Your task to perform on an android device: turn pop-ups off in chrome Image 0: 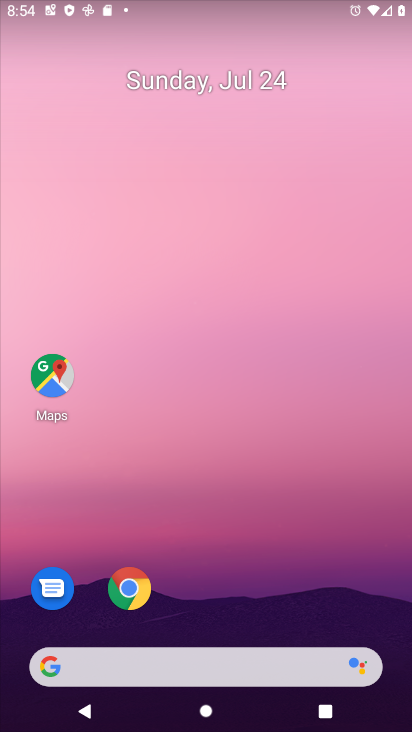
Step 0: drag from (408, 571) to (381, 504)
Your task to perform on an android device: turn pop-ups off in chrome Image 1: 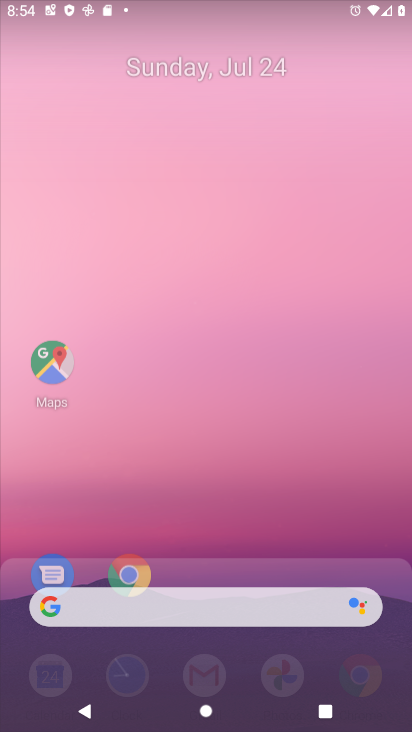
Step 1: drag from (265, 571) to (384, 1)
Your task to perform on an android device: turn pop-ups off in chrome Image 2: 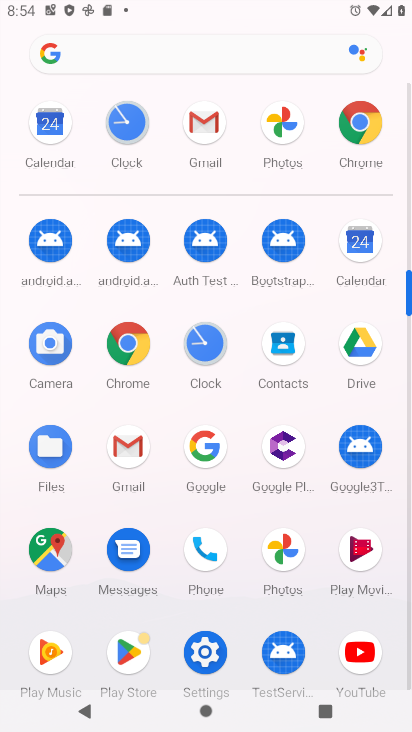
Step 2: click (373, 140)
Your task to perform on an android device: turn pop-ups off in chrome Image 3: 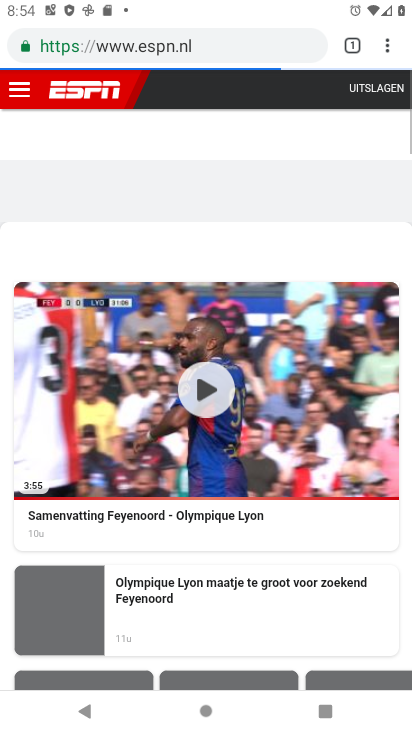
Step 3: drag from (380, 55) to (238, 508)
Your task to perform on an android device: turn pop-ups off in chrome Image 4: 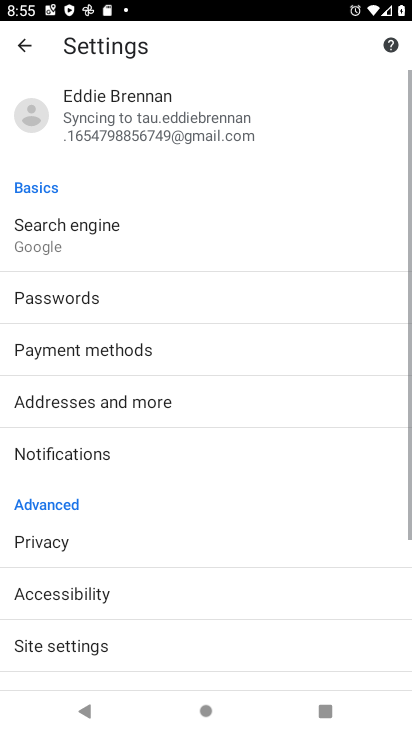
Step 4: drag from (128, 619) to (270, 204)
Your task to perform on an android device: turn pop-ups off in chrome Image 5: 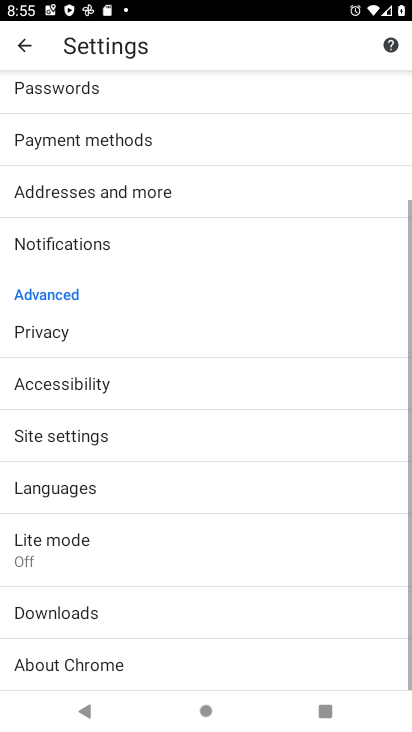
Step 5: click (82, 437)
Your task to perform on an android device: turn pop-ups off in chrome Image 6: 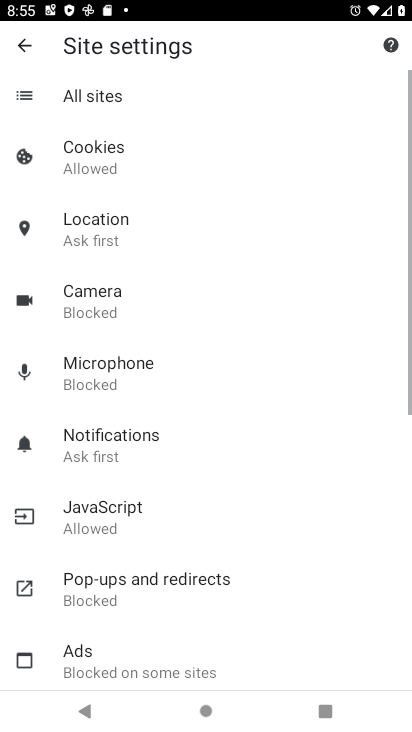
Step 6: click (116, 608)
Your task to perform on an android device: turn pop-ups off in chrome Image 7: 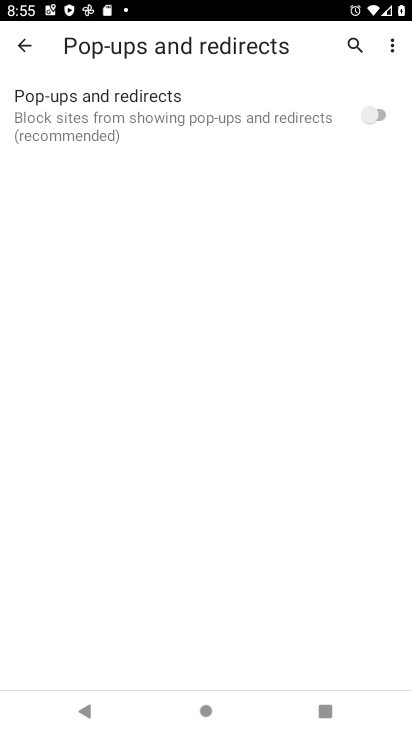
Step 7: task complete